Your task to perform on an android device: Open CNN.com Image 0: 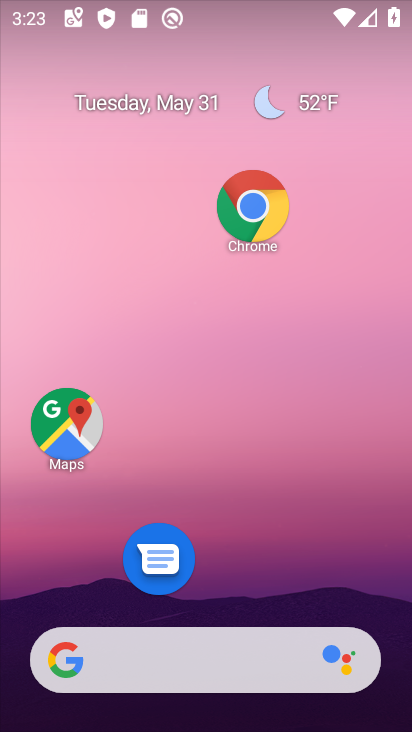
Step 0: click (235, 226)
Your task to perform on an android device: Open CNN.com Image 1: 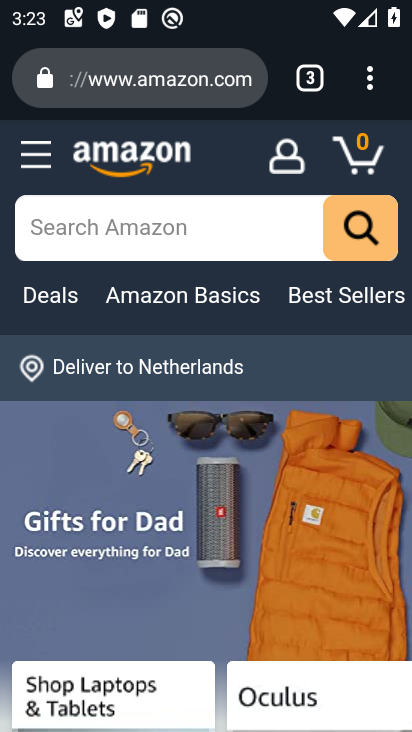
Step 1: click (309, 83)
Your task to perform on an android device: Open CNN.com Image 2: 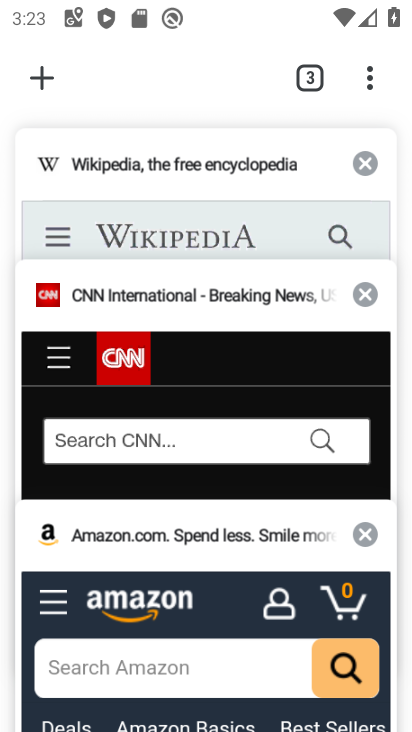
Step 2: click (72, 287)
Your task to perform on an android device: Open CNN.com Image 3: 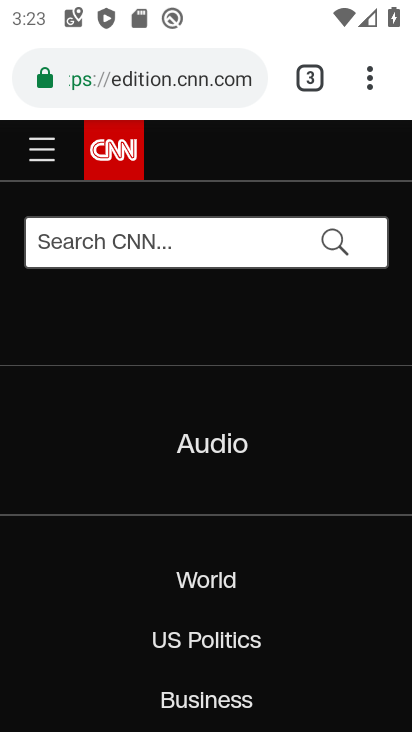
Step 3: task complete